Your task to perform on an android device: change keyboard looks Image 0: 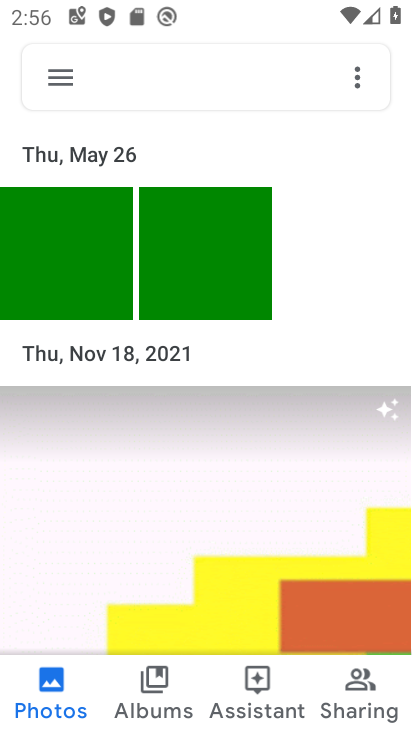
Step 0: drag from (191, 521) to (254, 0)
Your task to perform on an android device: change keyboard looks Image 1: 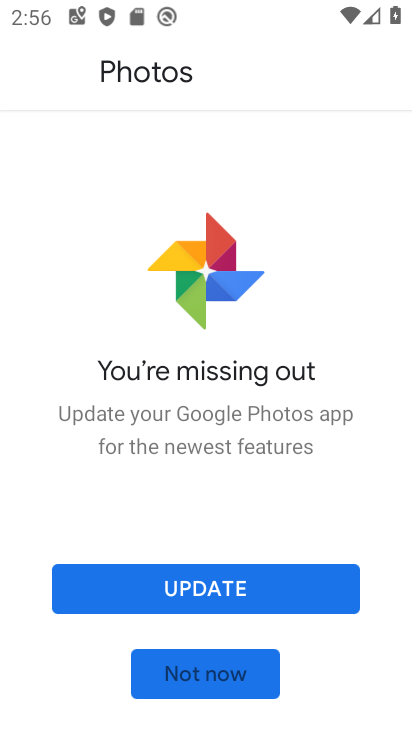
Step 1: press home button
Your task to perform on an android device: change keyboard looks Image 2: 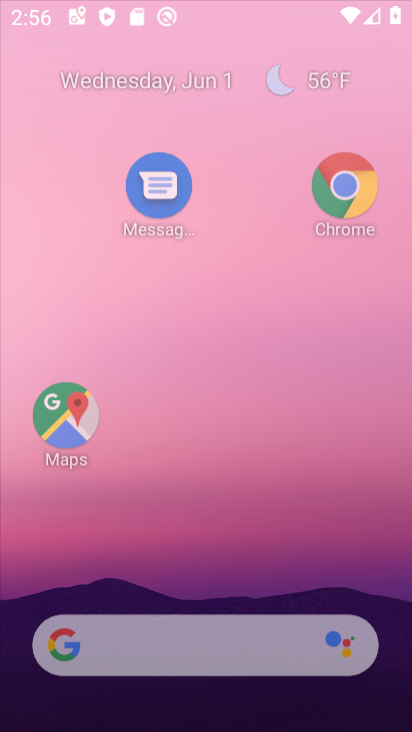
Step 2: drag from (244, 571) to (288, 56)
Your task to perform on an android device: change keyboard looks Image 3: 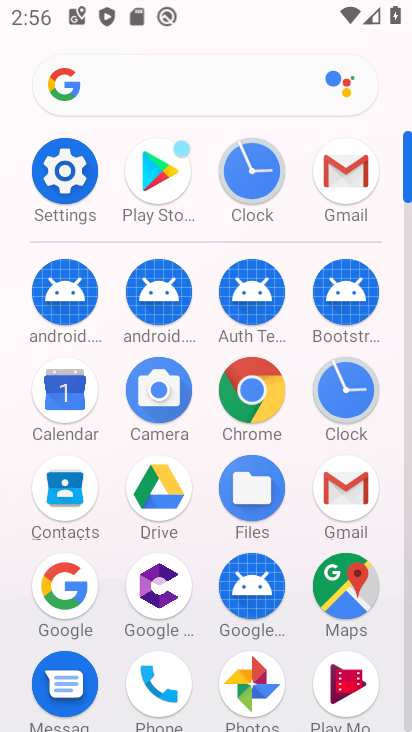
Step 3: click (64, 161)
Your task to perform on an android device: change keyboard looks Image 4: 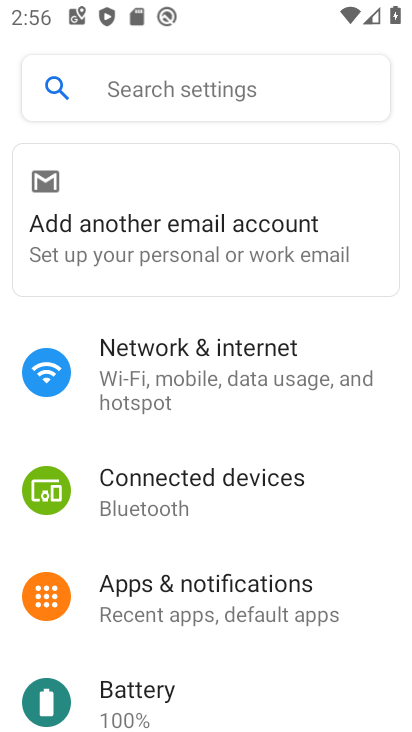
Step 4: drag from (242, 591) to (246, 10)
Your task to perform on an android device: change keyboard looks Image 5: 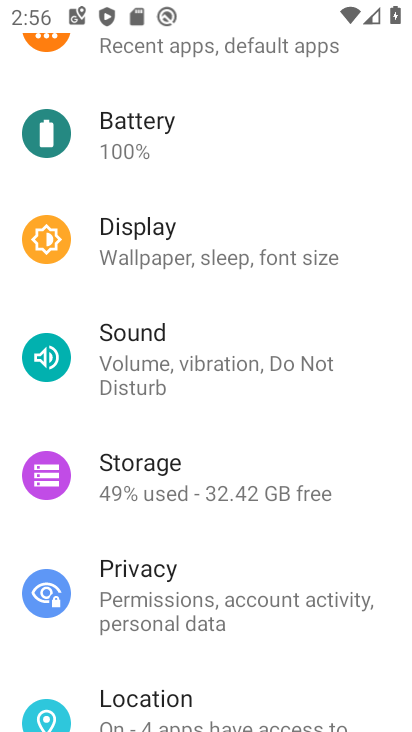
Step 5: drag from (221, 580) to (311, 3)
Your task to perform on an android device: change keyboard looks Image 6: 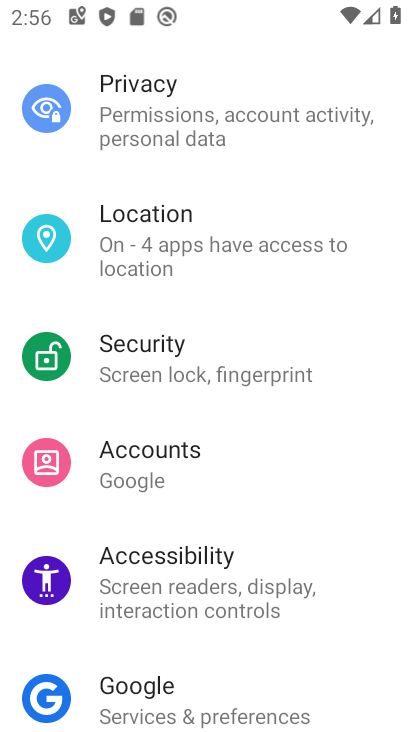
Step 6: drag from (218, 643) to (324, 24)
Your task to perform on an android device: change keyboard looks Image 7: 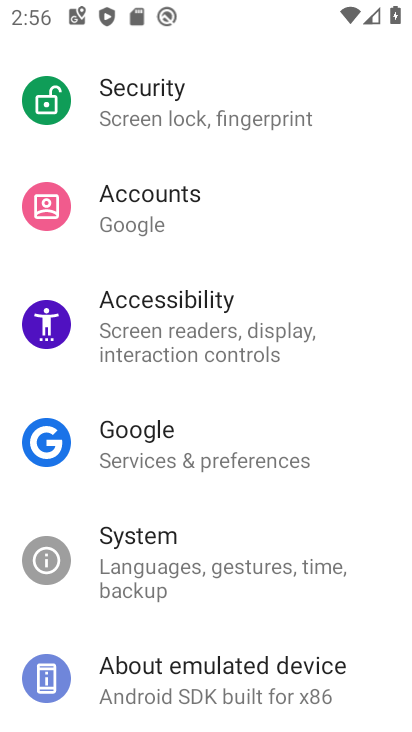
Step 7: click (179, 557)
Your task to perform on an android device: change keyboard looks Image 8: 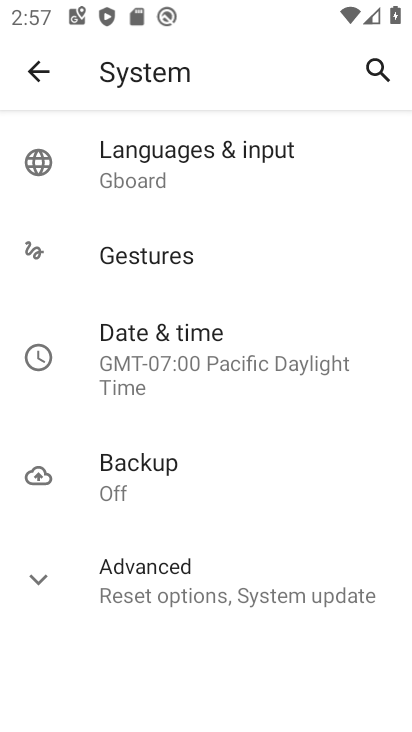
Step 8: click (259, 174)
Your task to perform on an android device: change keyboard looks Image 9: 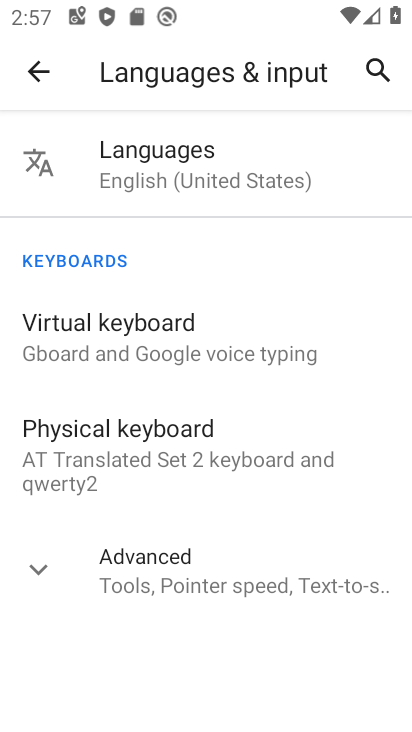
Step 9: click (166, 334)
Your task to perform on an android device: change keyboard looks Image 10: 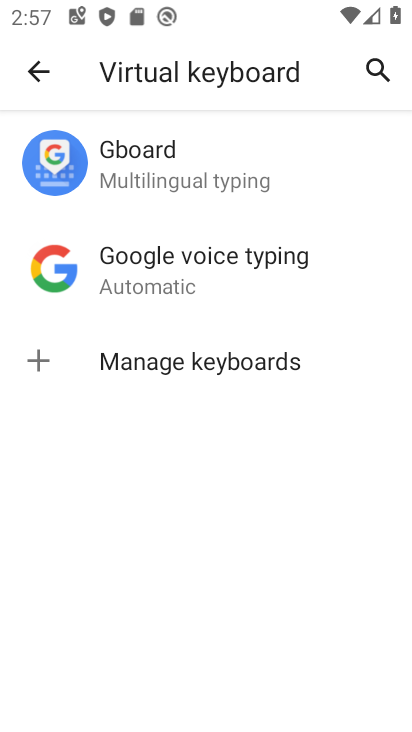
Step 10: click (164, 177)
Your task to perform on an android device: change keyboard looks Image 11: 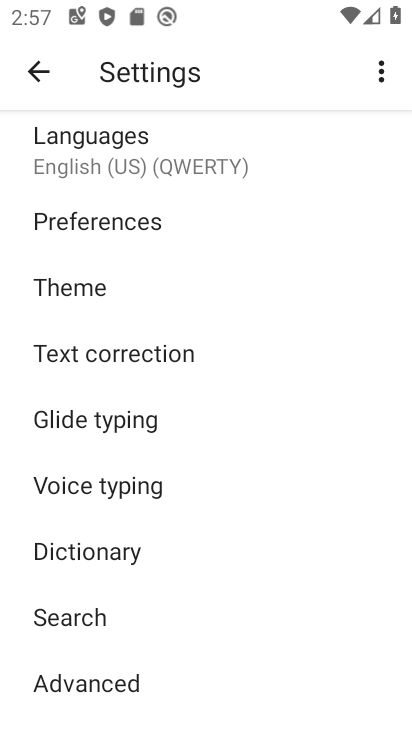
Step 11: click (132, 283)
Your task to perform on an android device: change keyboard looks Image 12: 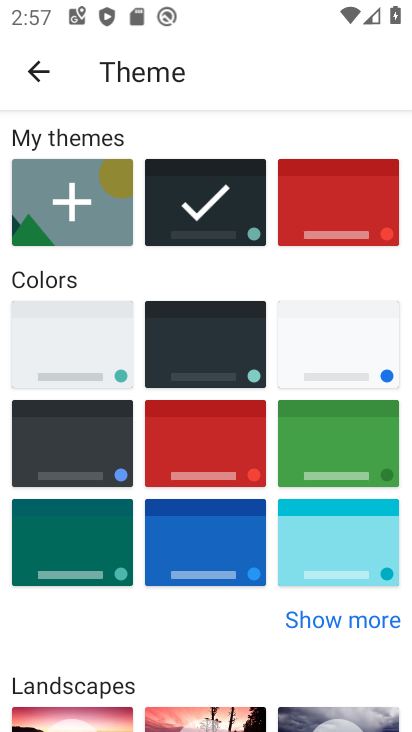
Step 12: click (321, 226)
Your task to perform on an android device: change keyboard looks Image 13: 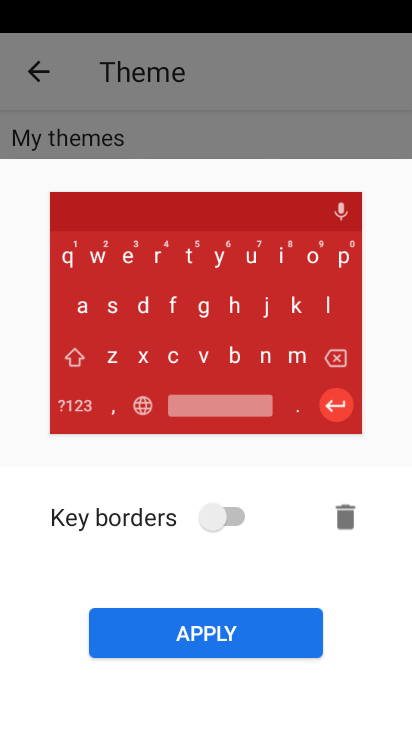
Step 13: click (229, 632)
Your task to perform on an android device: change keyboard looks Image 14: 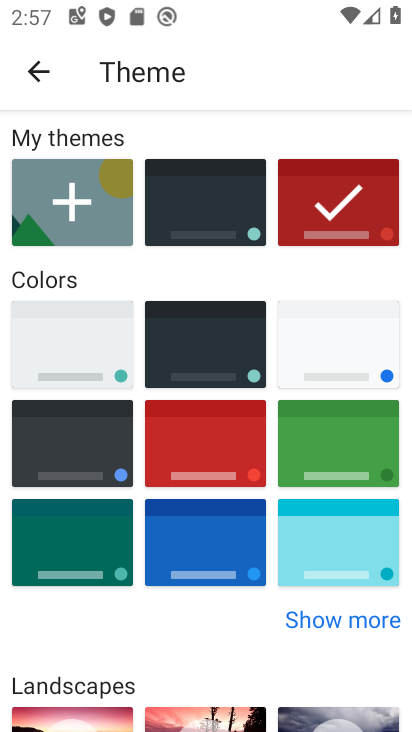
Step 14: task complete